Your task to perform on an android device: Search for seafood restaurants on Google Maps Image 0: 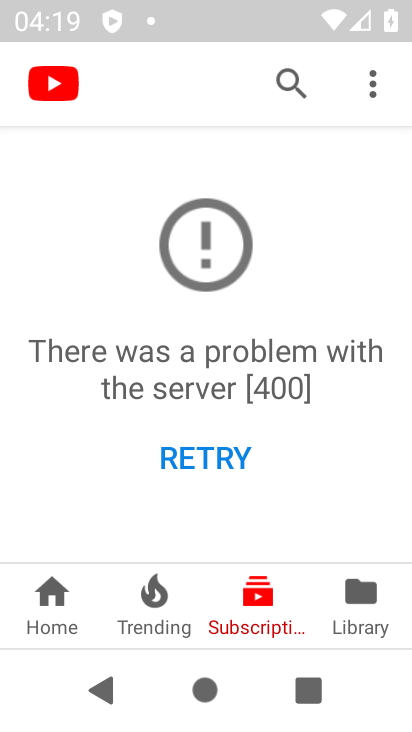
Step 0: press home button
Your task to perform on an android device: Search for seafood restaurants on Google Maps Image 1: 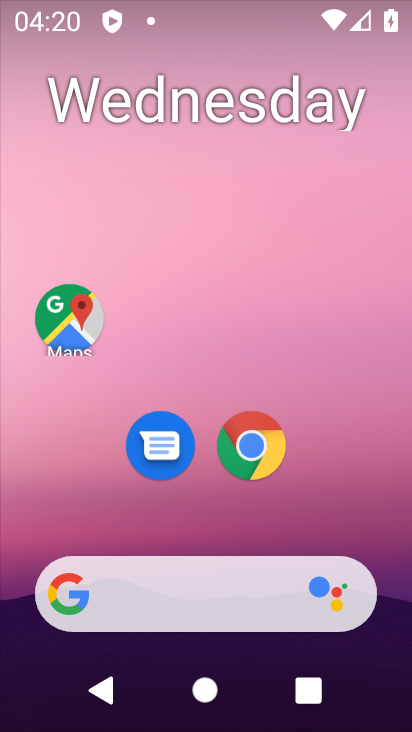
Step 1: click (87, 311)
Your task to perform on an android device: Search for seafood restaurants on Google Maps Image 2: 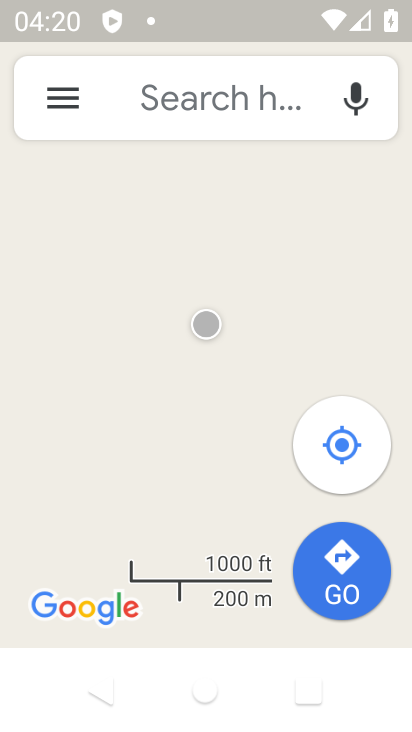
Step 2: click (195, 96)
Your task to perform on an android device: Search for seafood restaurants on Google Maps Image 3: 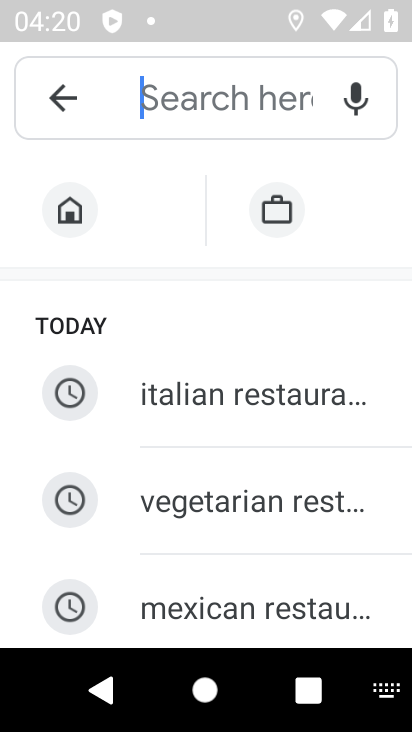
Step 3: type "seafood restaurant"
Your task to perform on an android device: Search for seafood restaurants on Google Maps Image 4: 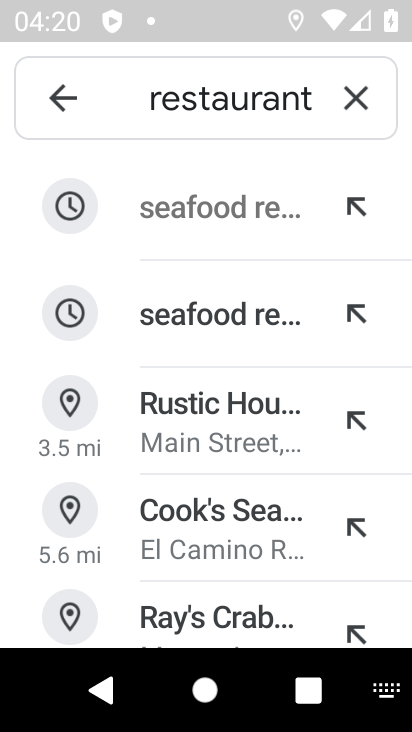
Step 4: click (258, 217)
Your task to perform on an android device: Search for seafood restaurants on Google Maps Image 5: 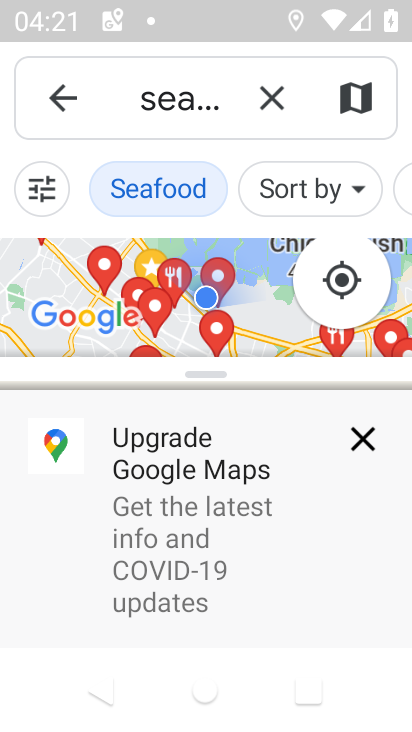
Step 5: task complete